Your task to perform on an android device: What is the recent news? Image 0: 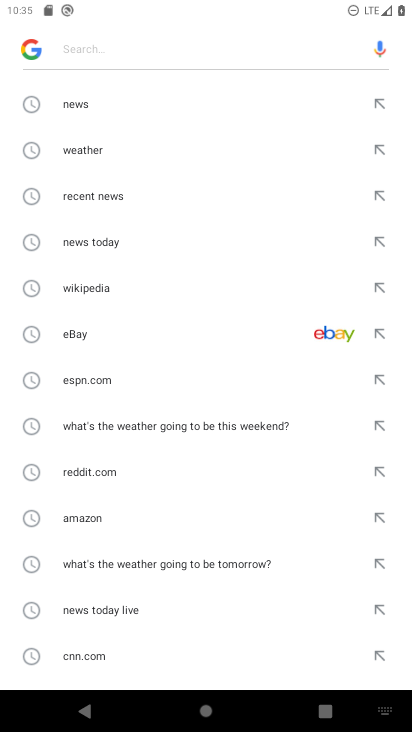
Step 0: click (88, 199)
Your task to perform on an android device: What is the recent news? Image 1: 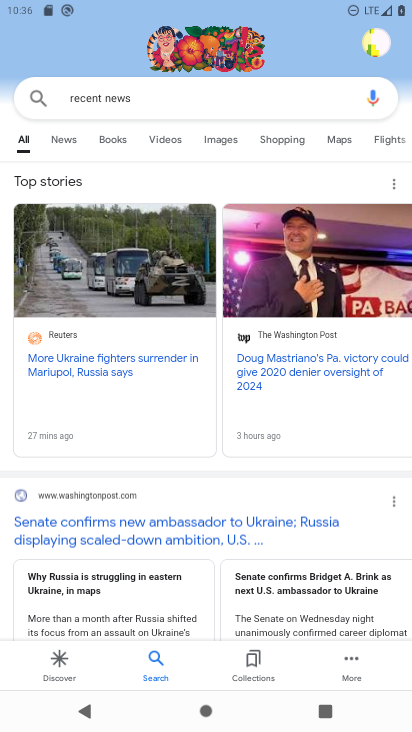
Step 1: click (110, 341)
Your task to perform on an android device: What is the recent news? Image 2: 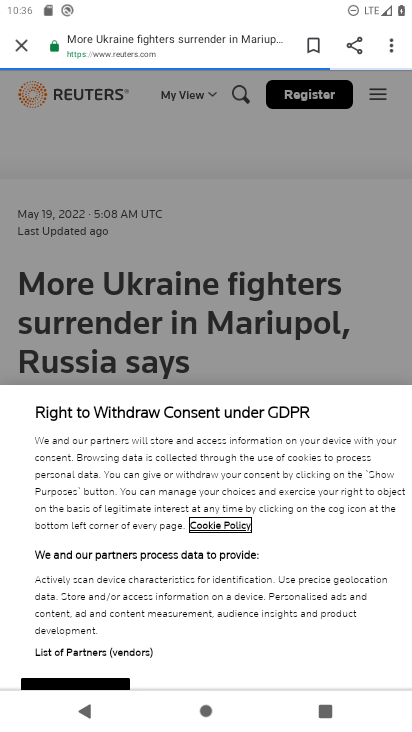
Step 2: task complete